Your task to perform on an android device: all mails in gmail Image 0: 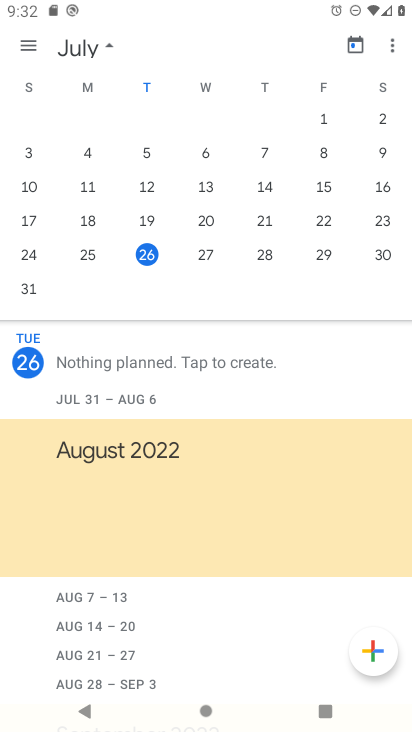
Step 0: press home button
Your task to perform on an android device: all mails in gmail Image 1: 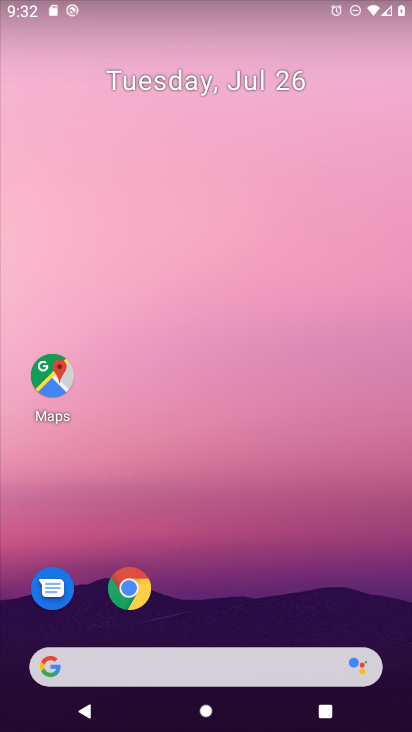
Step 1: drag from (208, 655) to (171, 130)
Your task to perform on an android device: all mails in gmail Image 2: 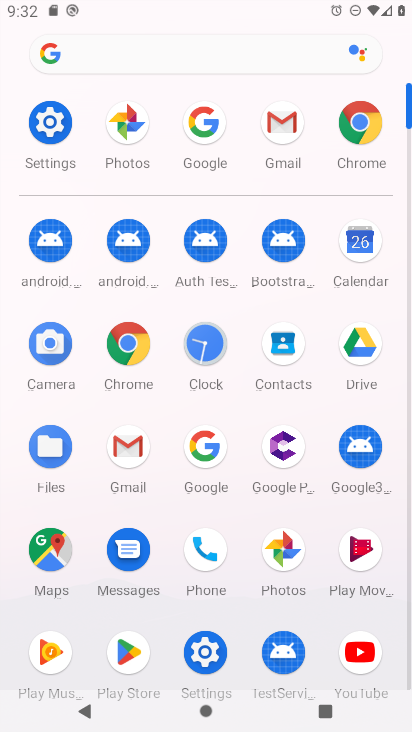
Step 2: click (121, 467)
Your task to perform on an android device: all mails in gmail Image 3: 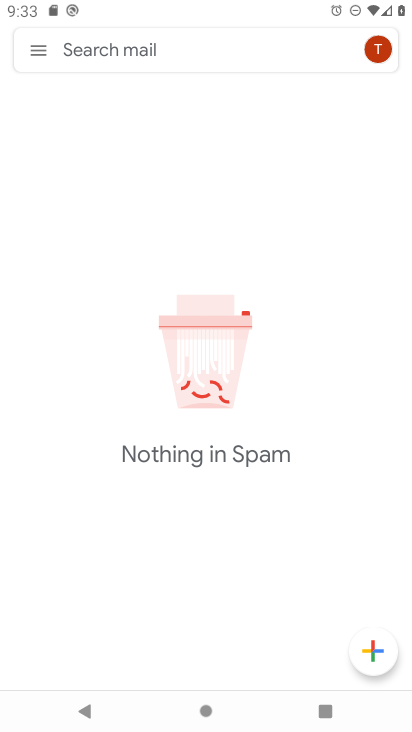
Step 3: click (41, 65)
Your task to perform on an android device: all mails in gmail Image 4: 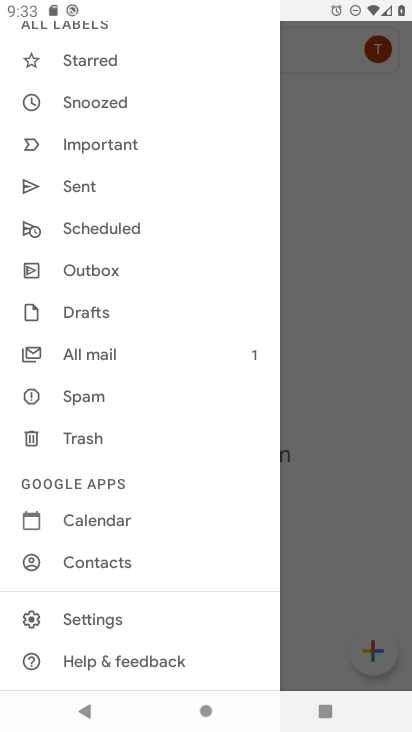
Step 4: click (165, 349)
Your task to perform on an android device: all mails in gmail Image 5: 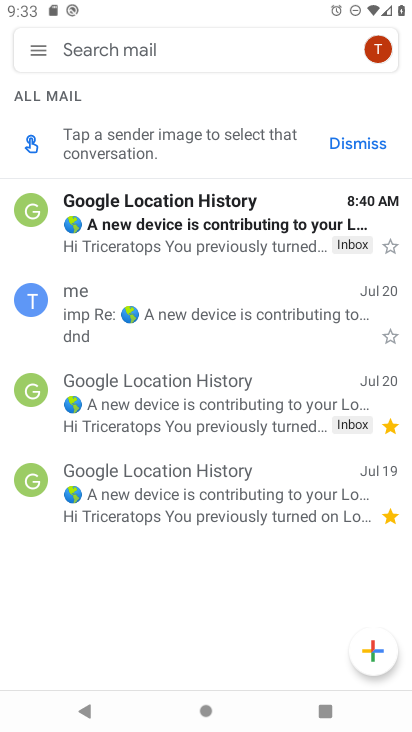
Step 5: task complete